Your task to perform on an android device: all mails in gmail Image 0: 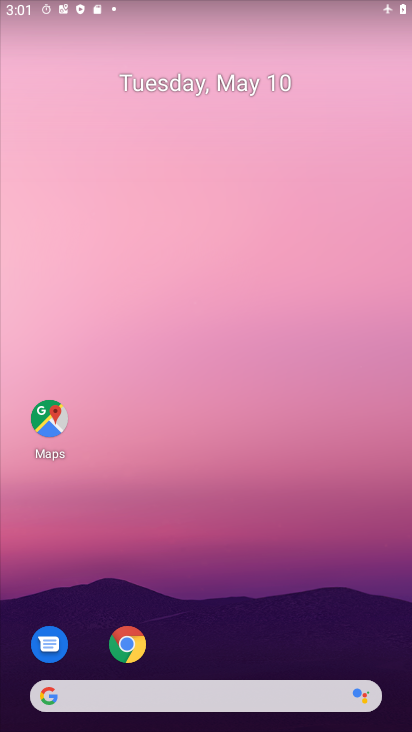
Step 0: drag from (217, 627) to (234, 162)
Your task to perform on an android device: all mails in gmail Image 1: 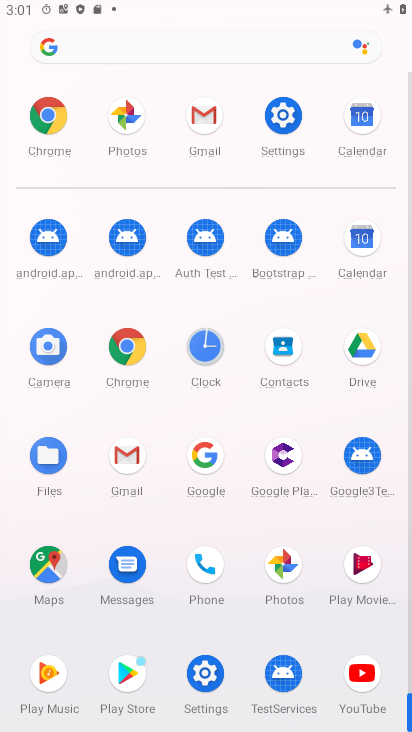
Step 1: click (132, 478)
Your task to perform on an android device: all mails in gmail Image 2: 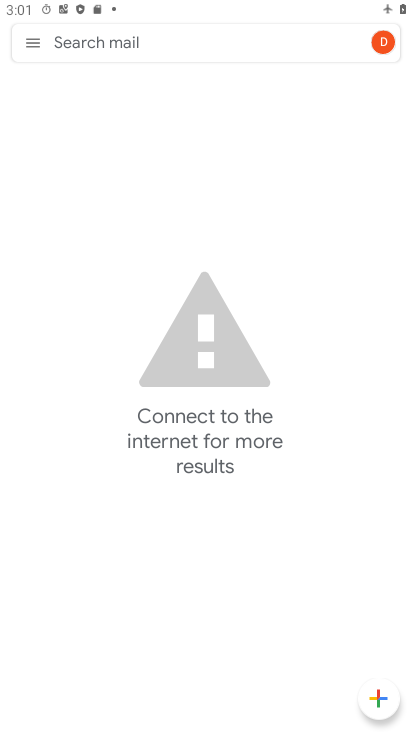
Step 2: click (42, 43)
Your task to perform on an android device: all mails in gmail Image 3: 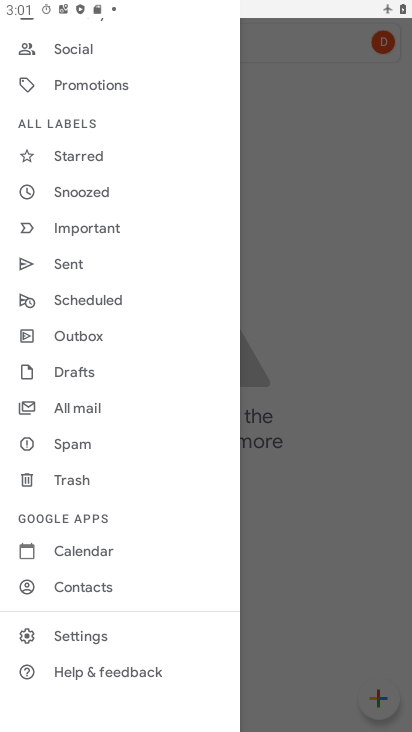
Step 3: click (117, 405)
Your task to perform on an android device: all mails in gmail Image 4: 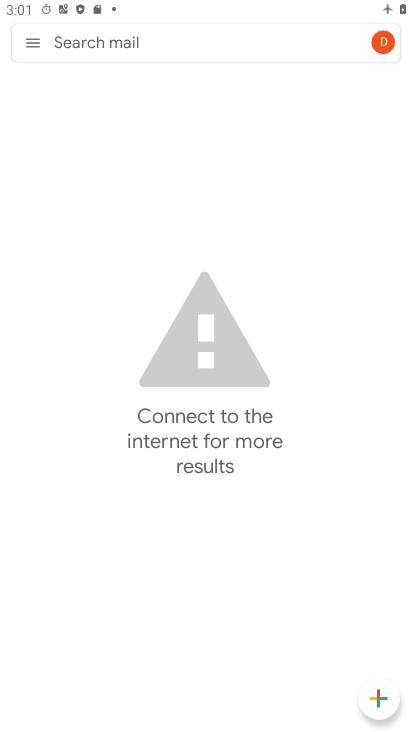
Step 4: task complete